Your task to perform on an android device: all mails in gmail Image 0: 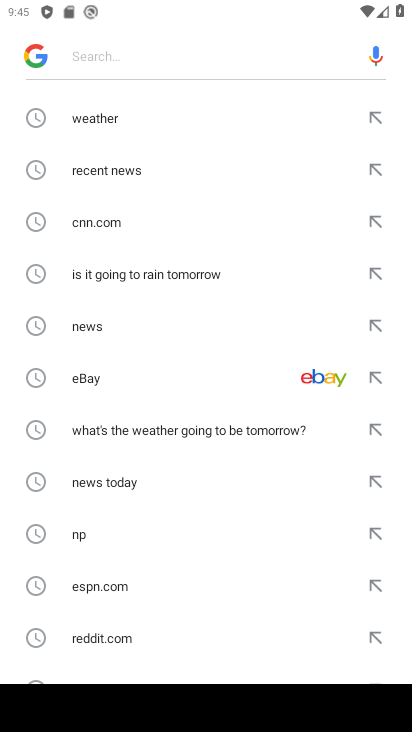
Step 0: press home button
Your task to perform on an android device: all mails in gmail Image 1: 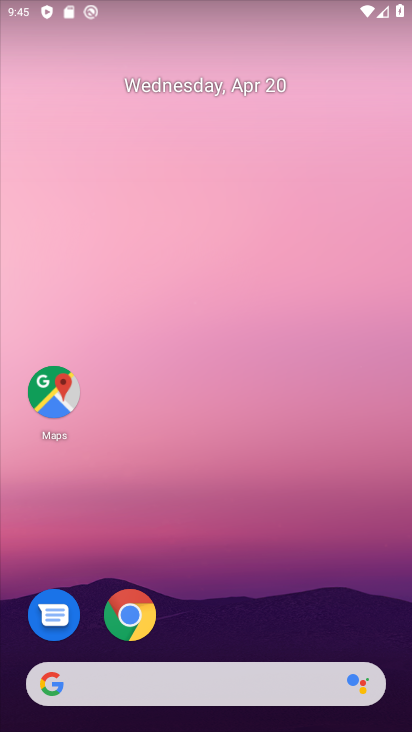
Step 1: drag from (297, 638) to (224, 64)
Your task to perform on an android device: all mails in gmail Image 2: 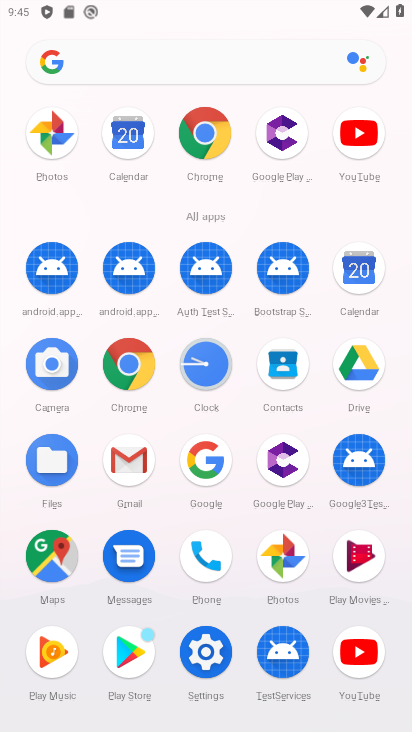
Step 2: click (134, 471)
Your task to perform on an android device: all mails in gmail Image 3: 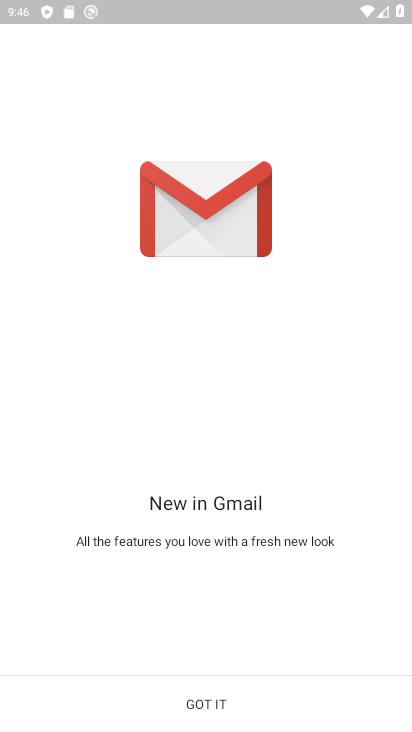
Step 3: click (222, 692)
Your task to perform on an android device: all mails in gmail Image 4: 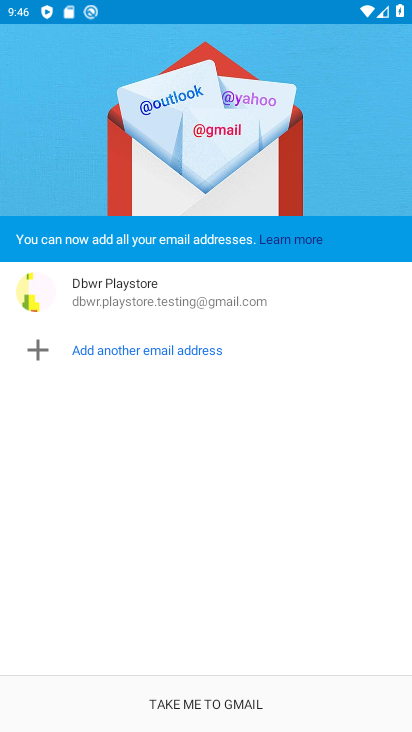
Step 4: click (213, 720)
Your task to perform on an android device: all mails in gmail Image 5: 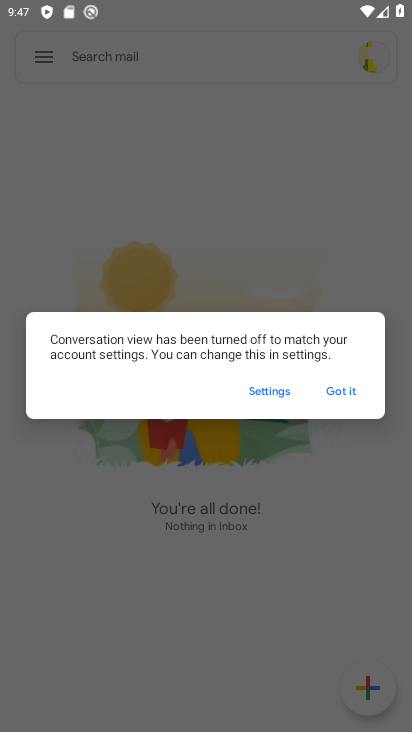
Step 5: click (324, 384)
Your task to perform on an android device: all mails in gmail Image 6: 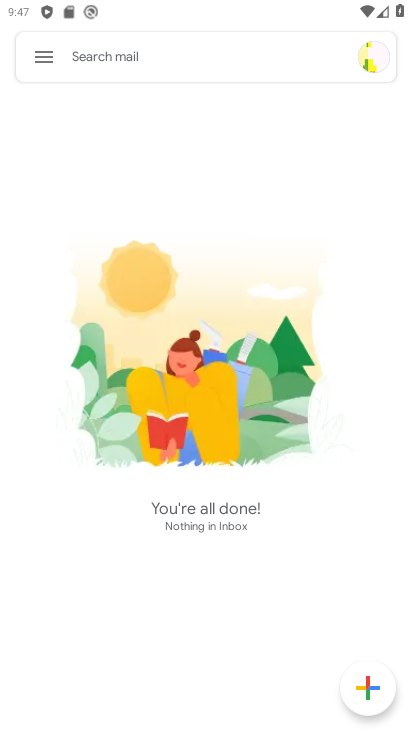
Step 6: task complete